Your task to perform on an android device: Open calendar and show me the first week of next month Image 0: 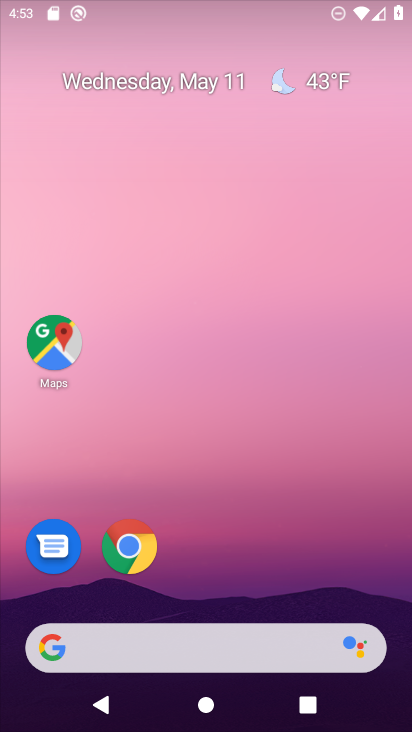
Step 0: click (127, 543)
Your task to perform on an android device: Open calendar and show me the first week of next month Image 1: 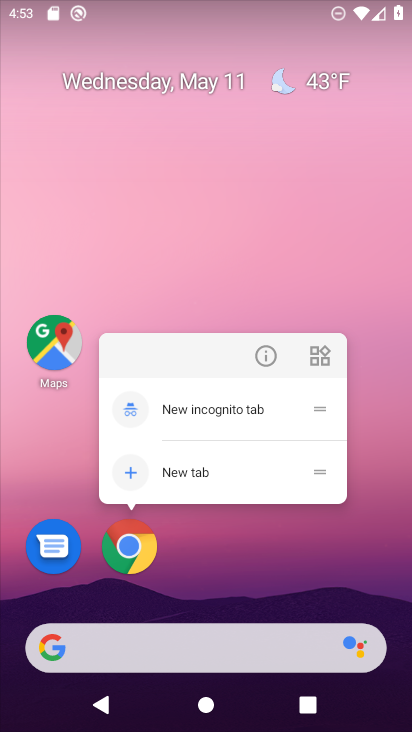
Step 1: press home button
Your task to perform on an android device: Open calendar and show me the first week of next month Image 2: 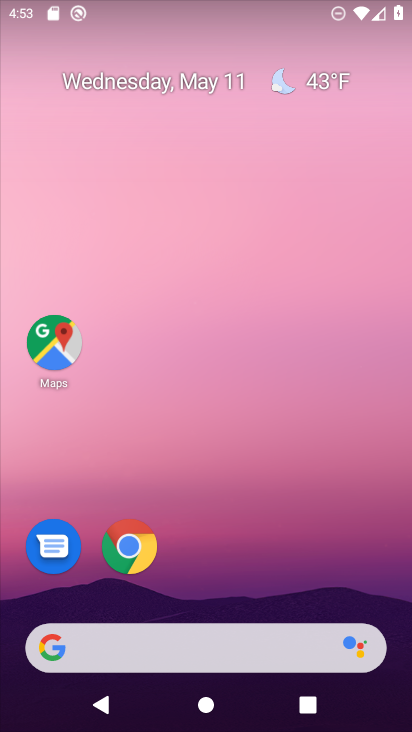
Step 2: drag from (173, 617) to (173, 234)
Your task to perform on an android device: Open calendar and show me the first week of next month Image 3: 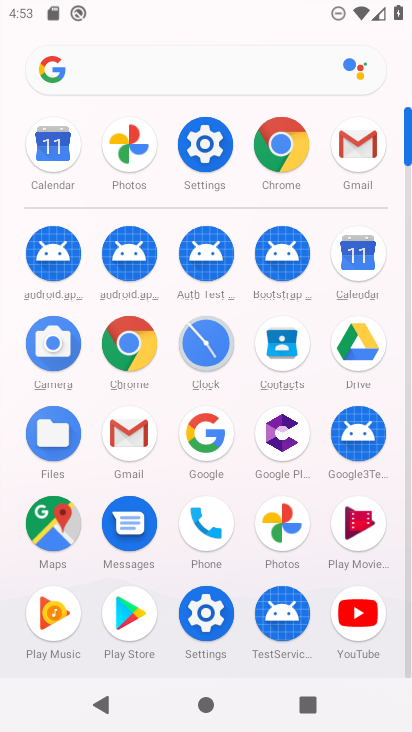
Step 3: click (342, 262)
Your task to perform on an android device: Open calendar and show me the first week of next month Image 4: 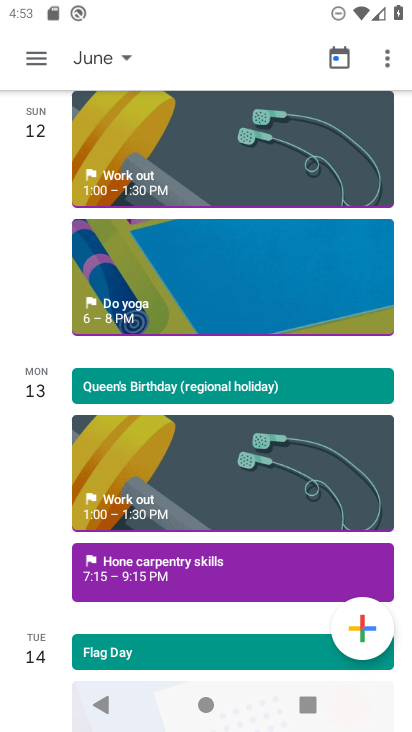
Step 4: click (91, 52)
Your task to perform on an android device: Open calendar and show me the first week of next month Image 5: 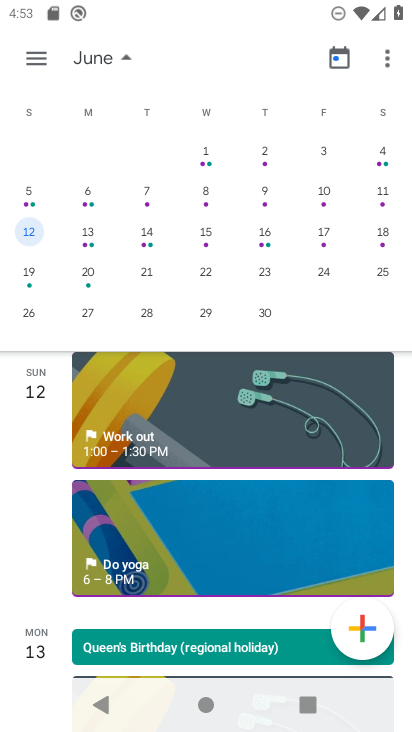
Step 5: click (210, 156)
Your task to perform on an android device: Open calendar and show me the first week of next month Image 6: 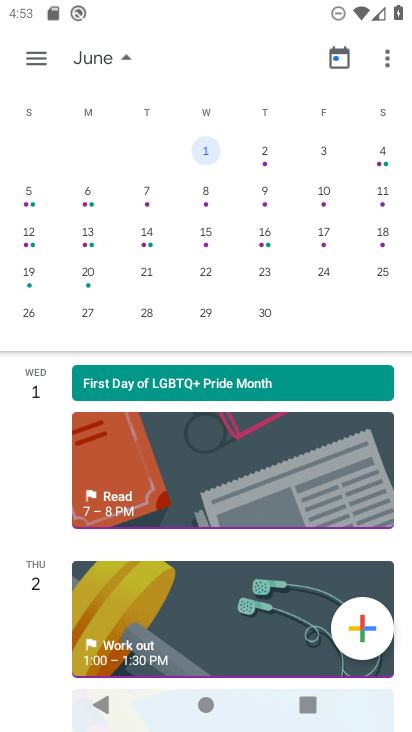
Step 6: task complete